Your task to perform on an android device: toggle wifi Image 0: 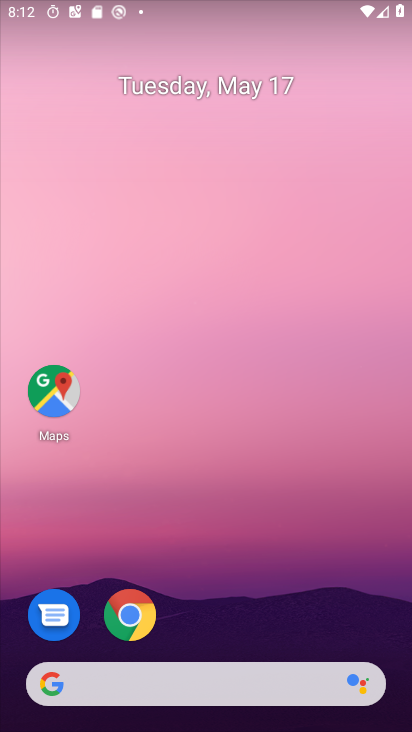
Step 0: drag from (180, 610) to (221, 187)
Your task to perform on an android device: toggle wifi Image 1: 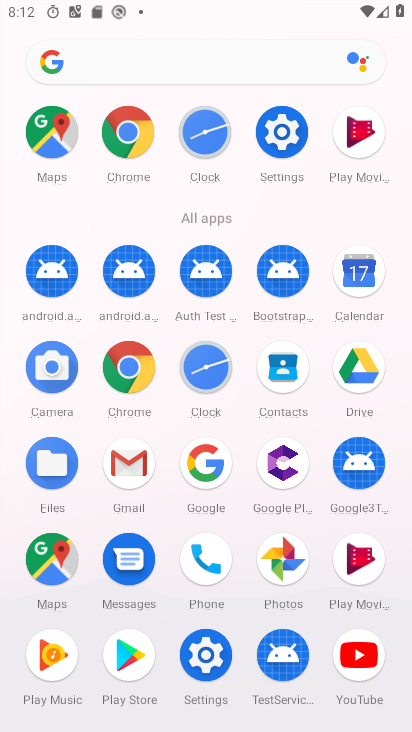
Step 1: click (272, 134)
Your task to perform on an android device: toggle wifi Image 2: 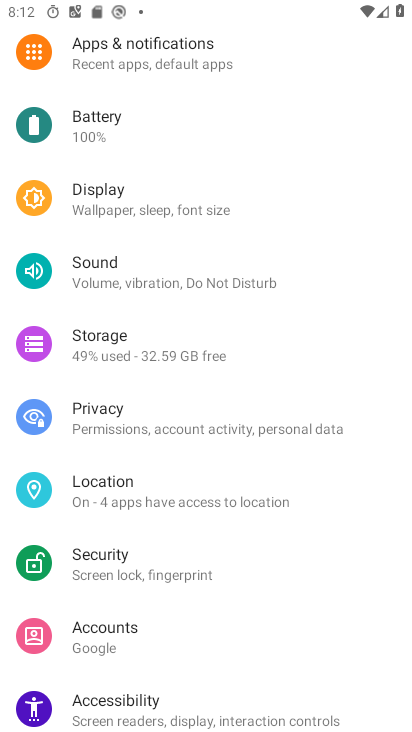
Step 2: drag from (287, 128) to (284, 517)
Your task to perform on an android device: toggle wifi Image 3: 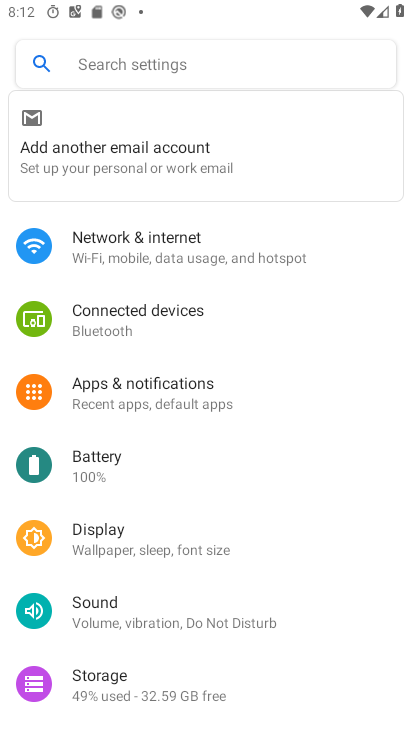
Step 3: click (247, 241)
Your task to perform on an android device: toggle wifi Image 4: 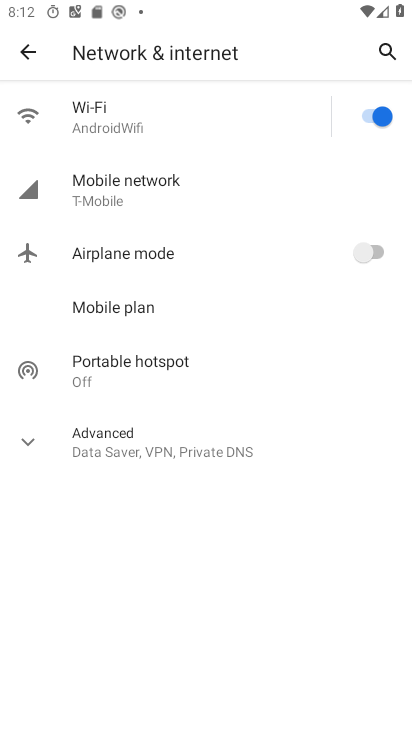
Step 4: click (367, 109)
Your task to perform on an android device: toggle wifi Image 5: 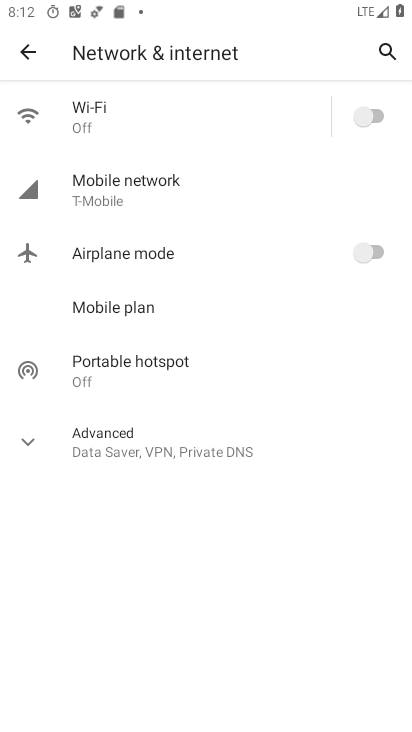
Step 5: task complete